Your task to perform on an android device: toggle translation in the chrome app Image 0: 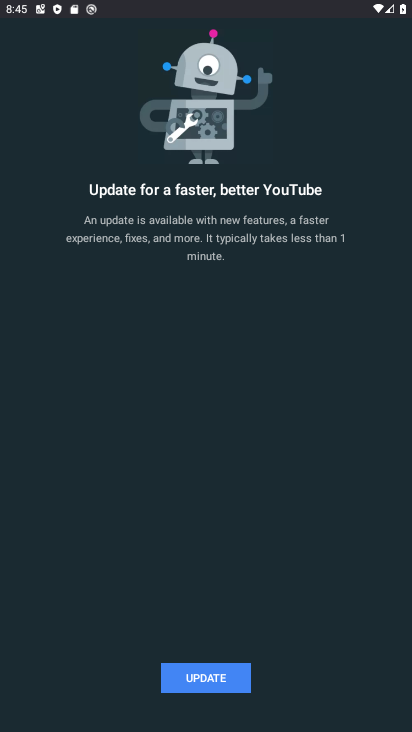
Step 0: press home button
Your task to perform on an android device: toggle translation in the chrome app Image 1: 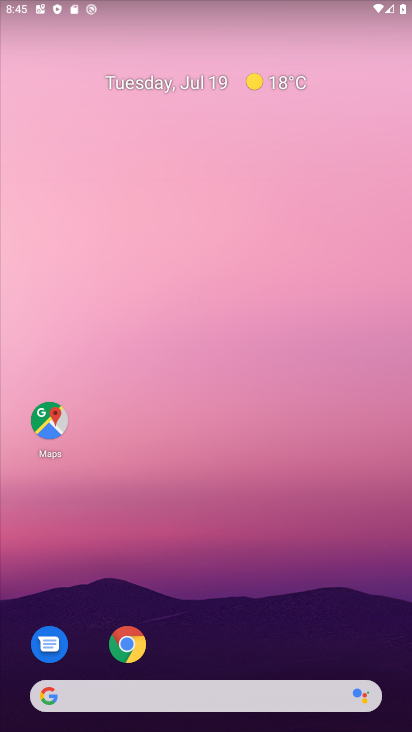
Step 1: drag from (254, 727) to (254, 197)
Your task to perform on an android device: toggle translation in the chrome app Image 2: 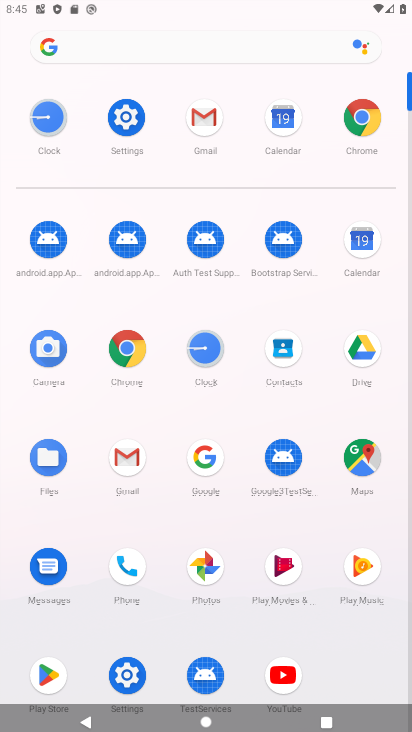
Step 2: click (129, 355)
Your task to perform on an android device: toggle translation in the chrome app Image 3: 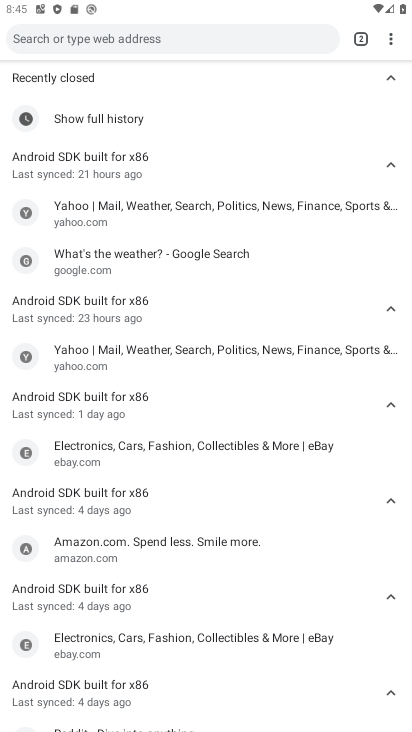
Step 3: click (389, 39)
Your task to perform on an android device: toggle translation in the chrome app Image 4: 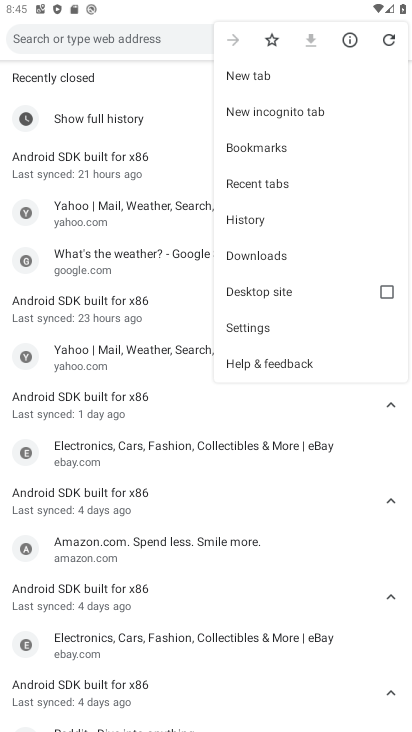
Step 4: click (243, 324)
Your task to perform on an android device: toggle translation in the chrome app Image 5: 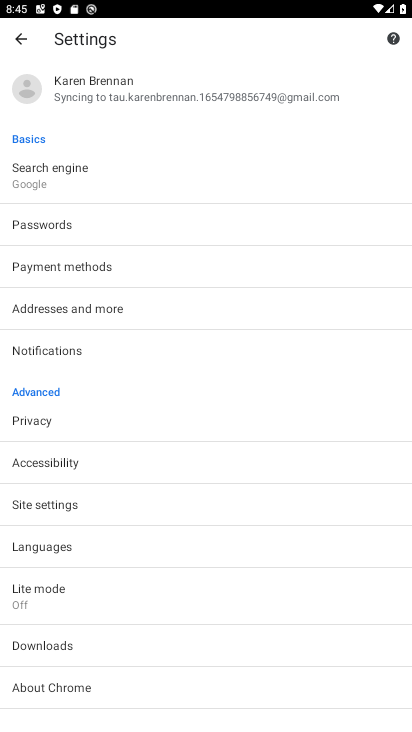
Step 5: click (37, 546)
Your task to perform on an android device: toggle translation in the chrome app Image 6: 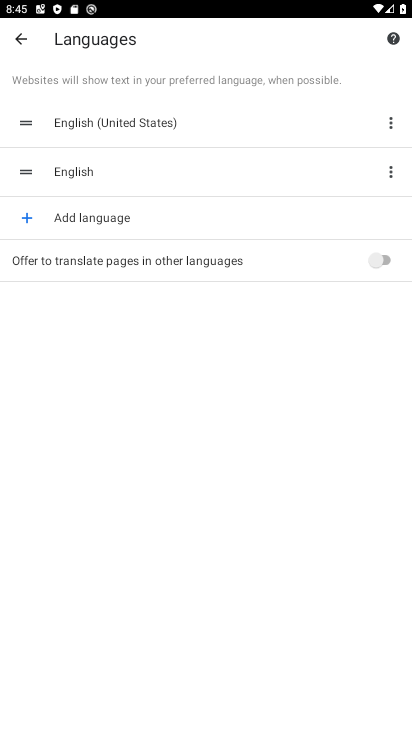
Step 6: click (383, 257)
Your task to perform on an android device: toggle translation in the chrome app Image 7: 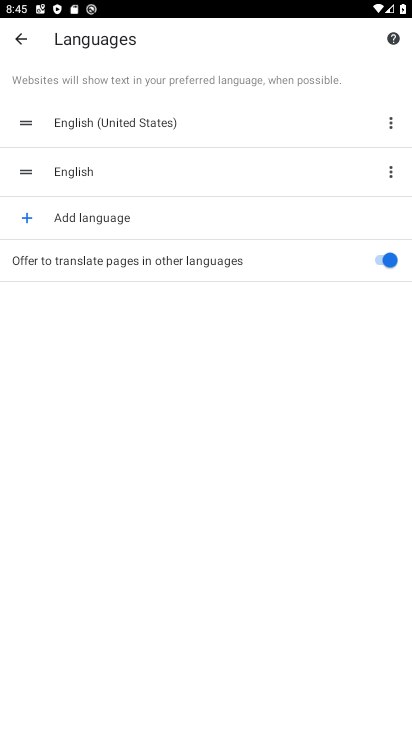
Step 7: task complete